Your task to perform on an android device: Open Google Image 0: 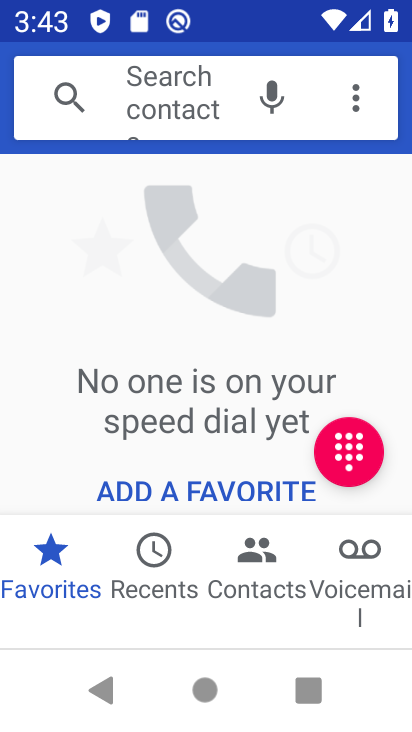
Step 0: press back button
Your task to perform on an android device: Open Google Image 1: 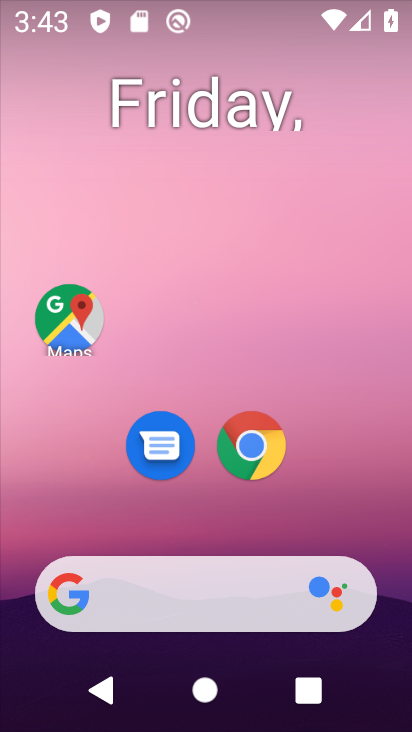
Step 1: drag from (357, 383) to (299, 10)
Your task to perform on an android device: Open Google Image 2: 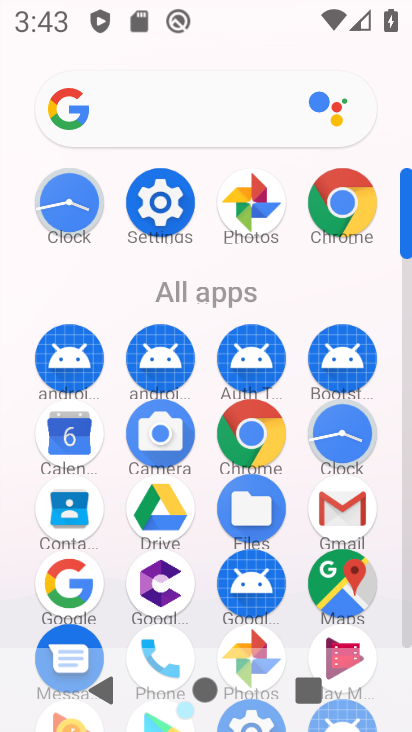
Step 2: drag from (23, 496) to (15, 110)
Your task to perform on an android device: Open Google Image 3: 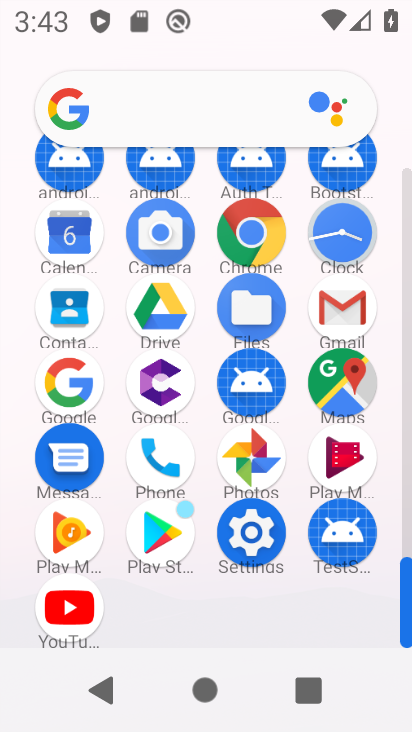
Step 3: click (260, 231)
Your task to perform on an android device: Open Google Image 4: 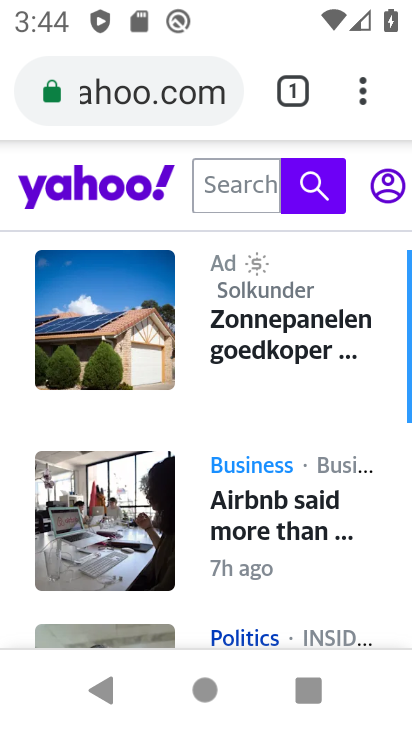
Step 4: press back button
Your task to perform on an android device: Open Google Image 5: 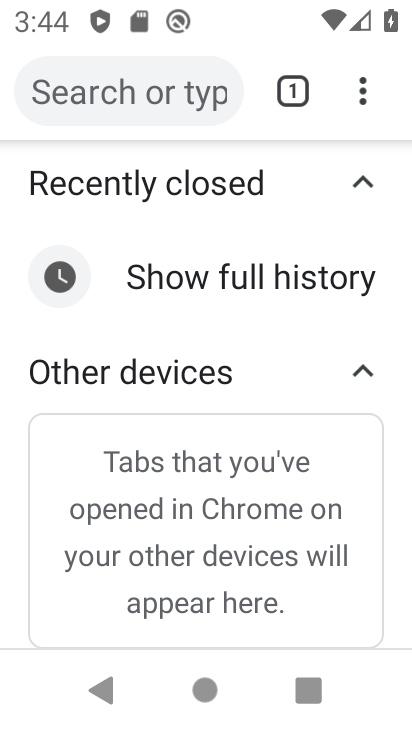
Step 5: press back button
Your task to perform on an android device: Open Google Image 6: 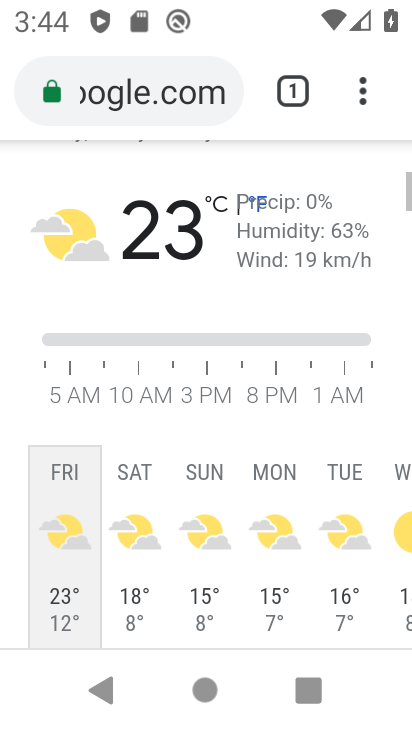
Step 6: click (180, 103)
Your task to perform on an android device: Open Google Image 7: 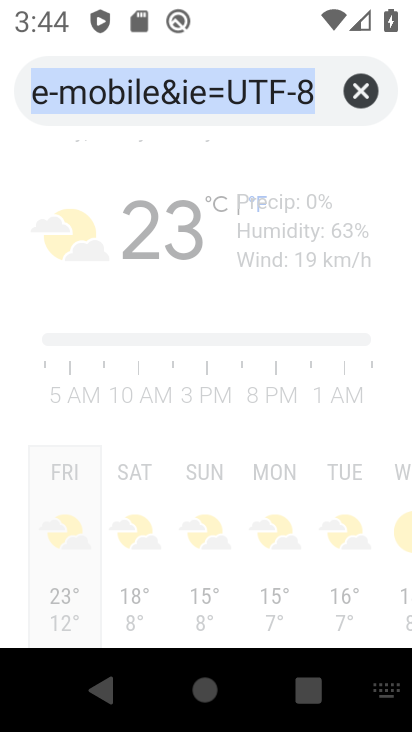
Step 7: click (334, 97)
Your task to perform on an android device: Open Google Image 8: 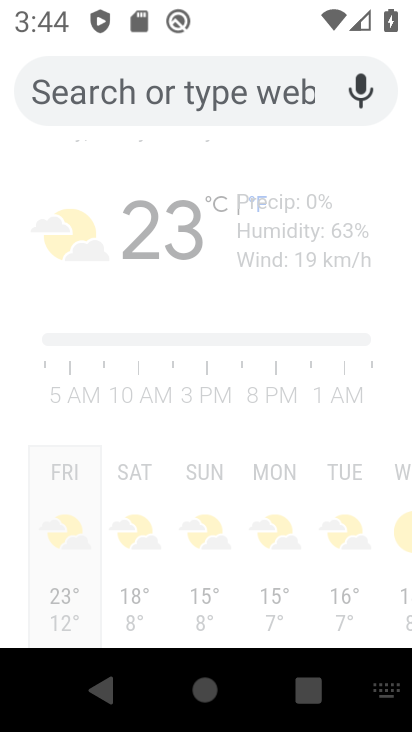
Step 8: type "google"
Your task to perform on an android device: Open Google Image 9: 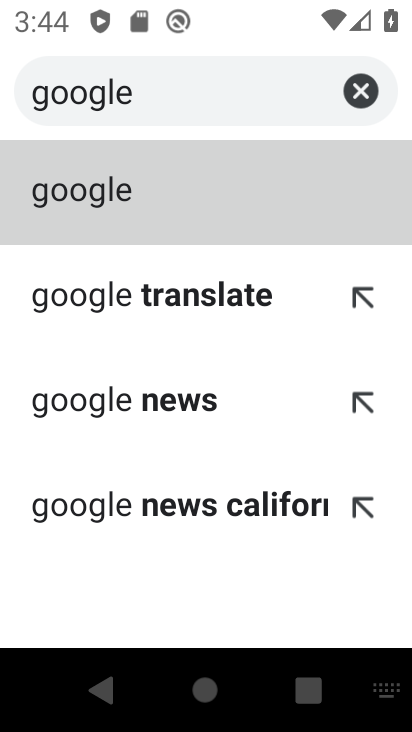
Step 9: click (166, 212)
Your task to perform on an android device: Open Google Image 10: 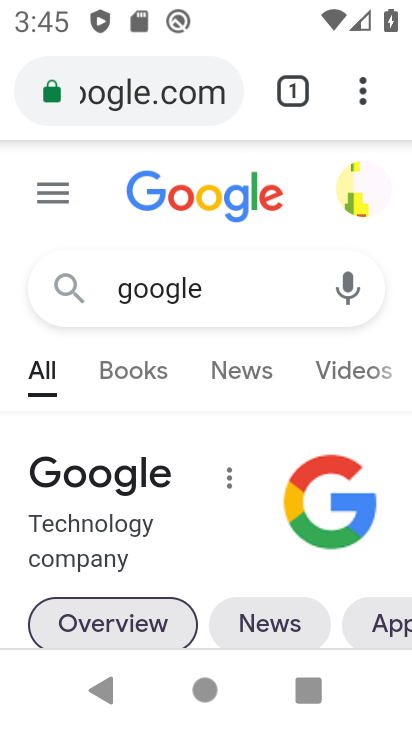
Step 10: drag from (143, 523) to (176, 167)
Your task to perform on an android device: Open Google Image 11: 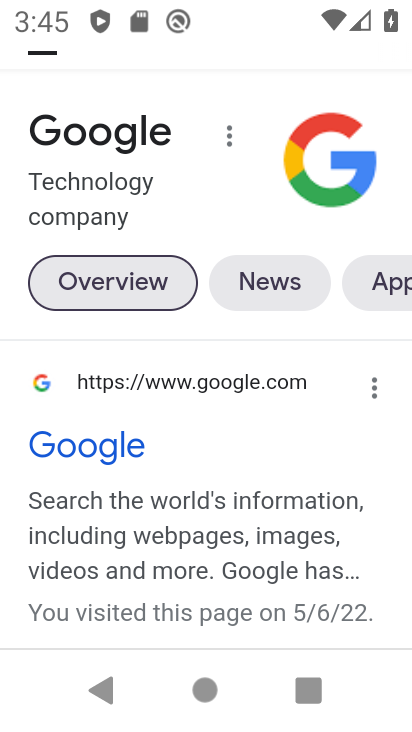
Step 11: click (101, 444)
Your task to perform on an android device: Open Google Image 12: 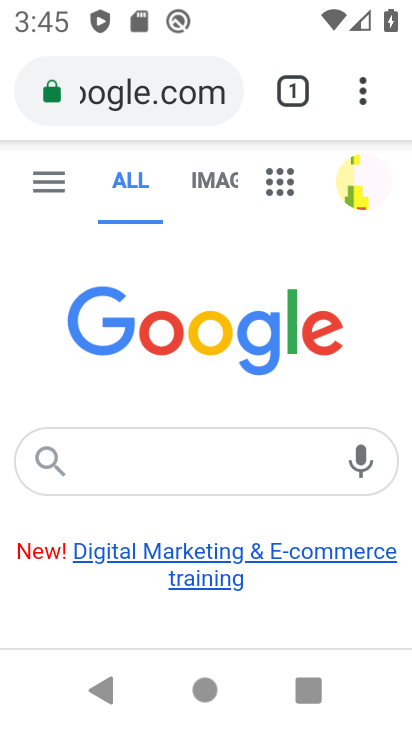
Step 12: task complete